Your task to perform on an android device: install app "Google Chrome" Image 0: 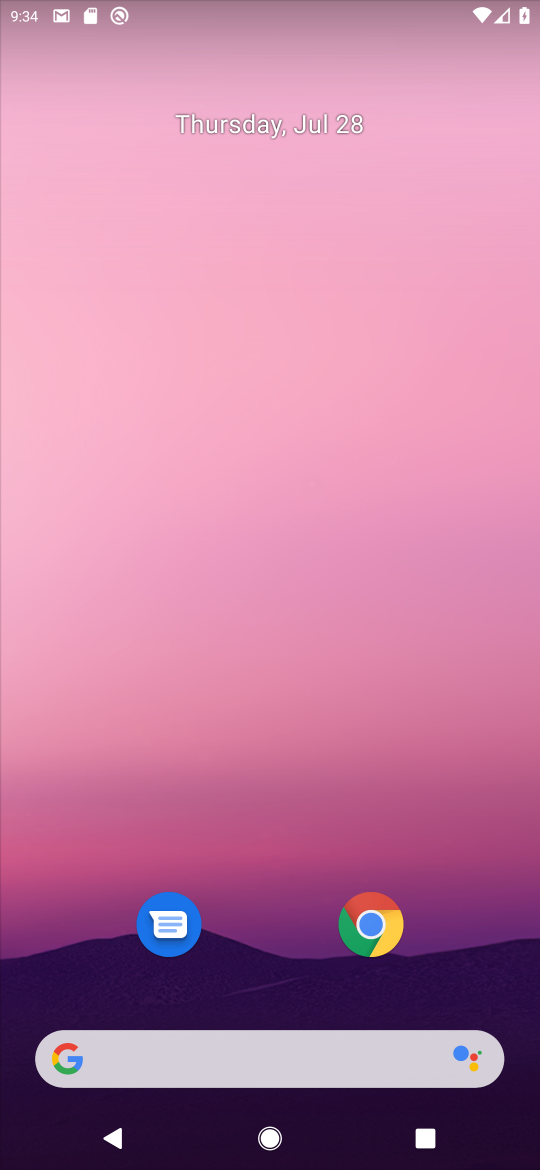
Step 0: drag from (281, 717) to (316, 282)
Your task to perform on an android device: install app "Google Chrome" Image 1: 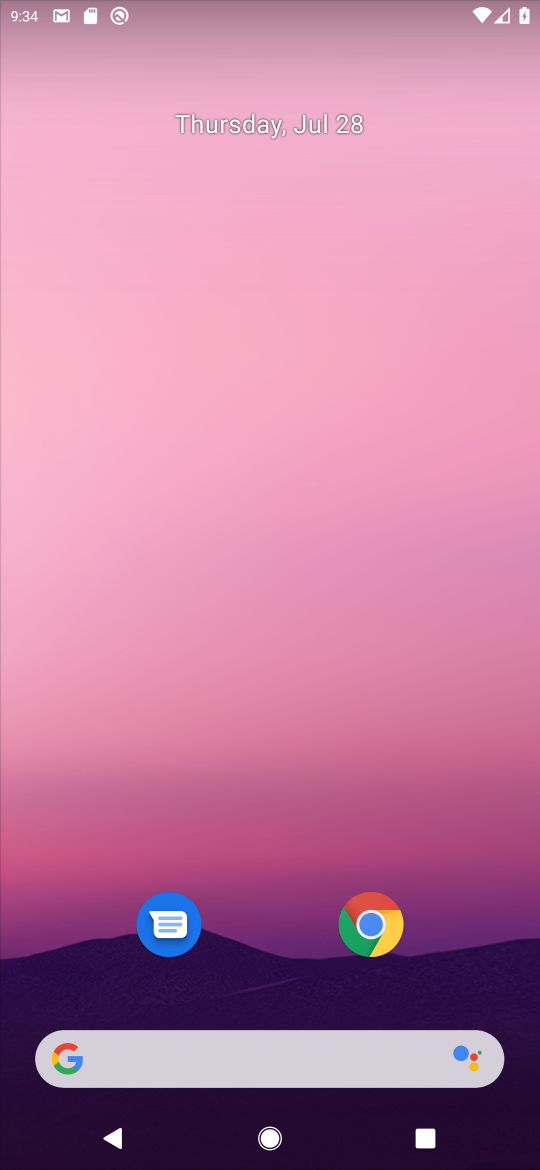
Step 1: drag from (250, 1064) to (256, 72)
Your task to perform on an android device: install app "Google Chrome" Image 2: 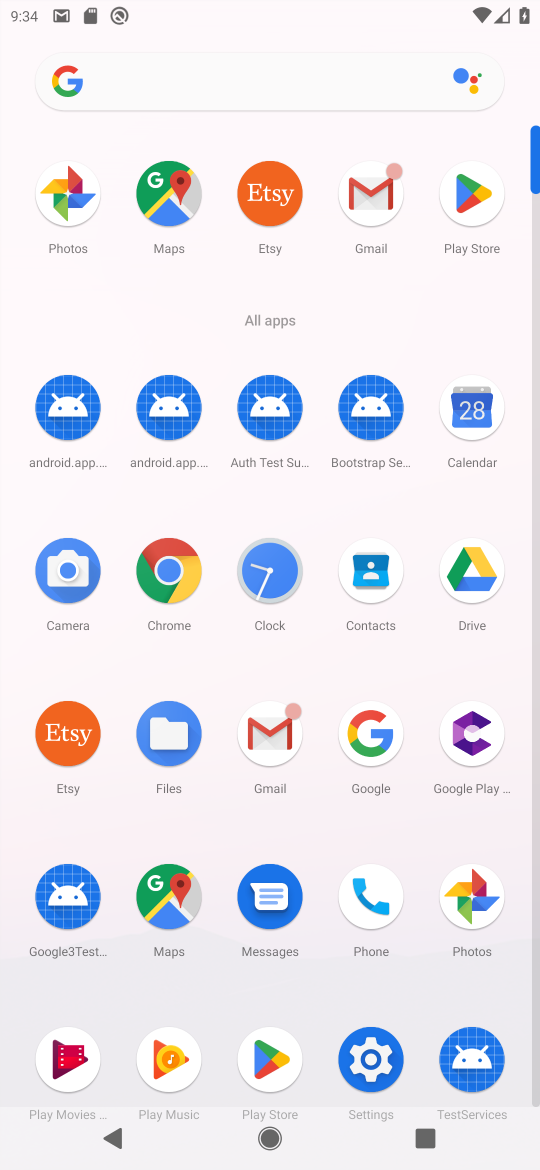
Step 2: click (452, 199)
Your task to perform on an android device: install app "Google Chrome" Image 3: 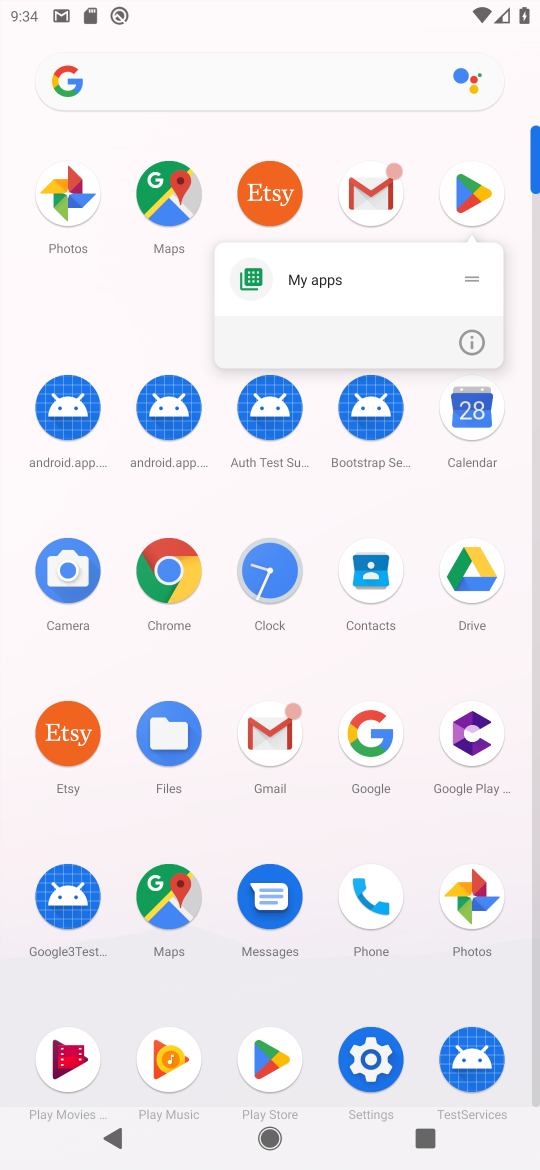
Step 3: click (452, 199)
Your task to perform on an android device: install app "Google Chrome" Image 4: 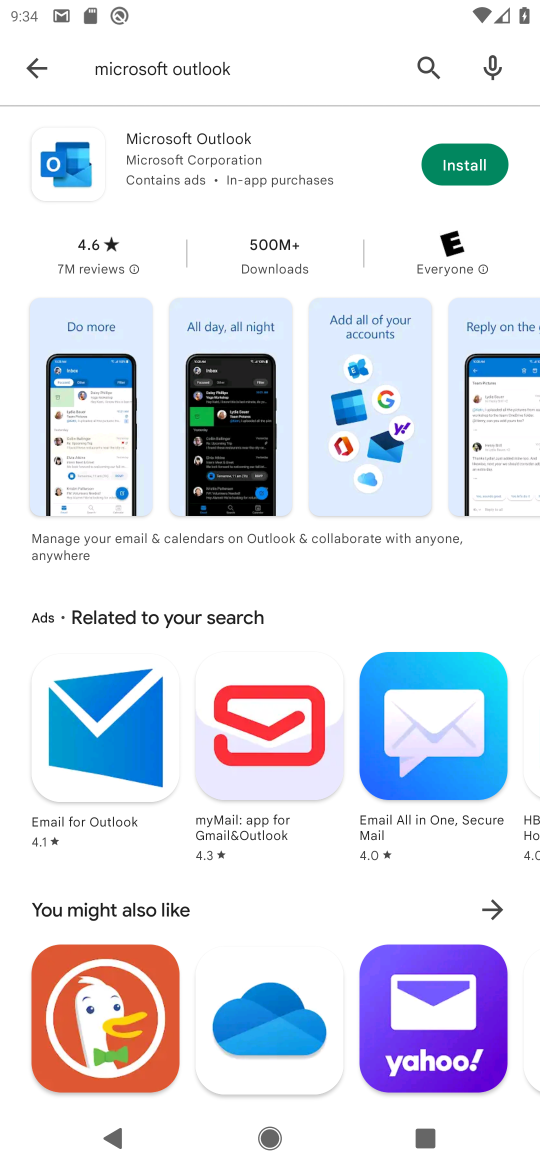
Step 4: click (424, 64)
Your task to perform on an android device: install app "Google Chrome" Image 5: 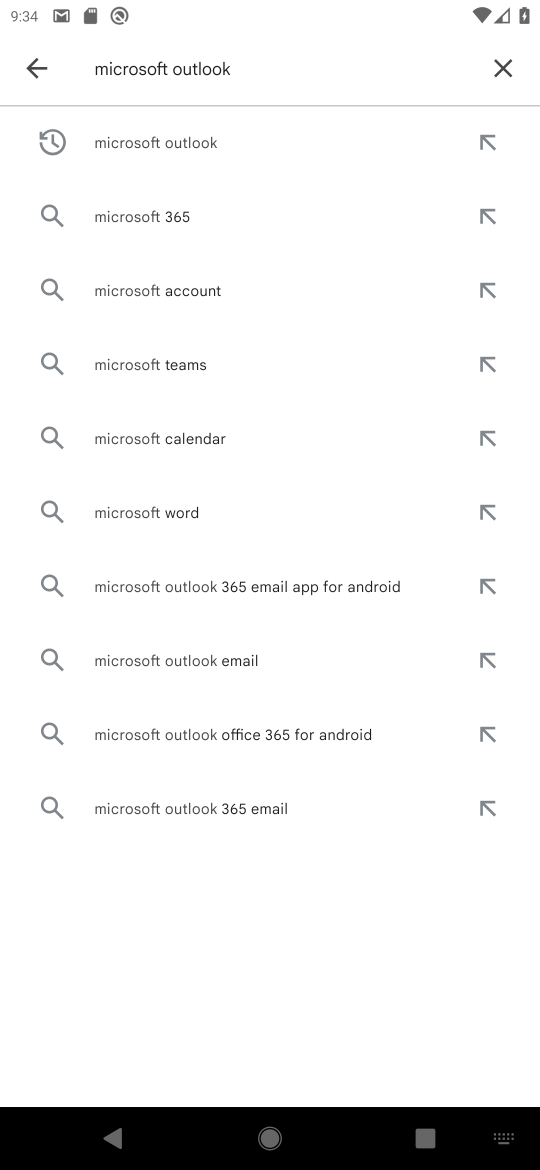
Step 5: click (492, 68)
Your task to perform on an android device: install app "Google Chrome" Image 6: 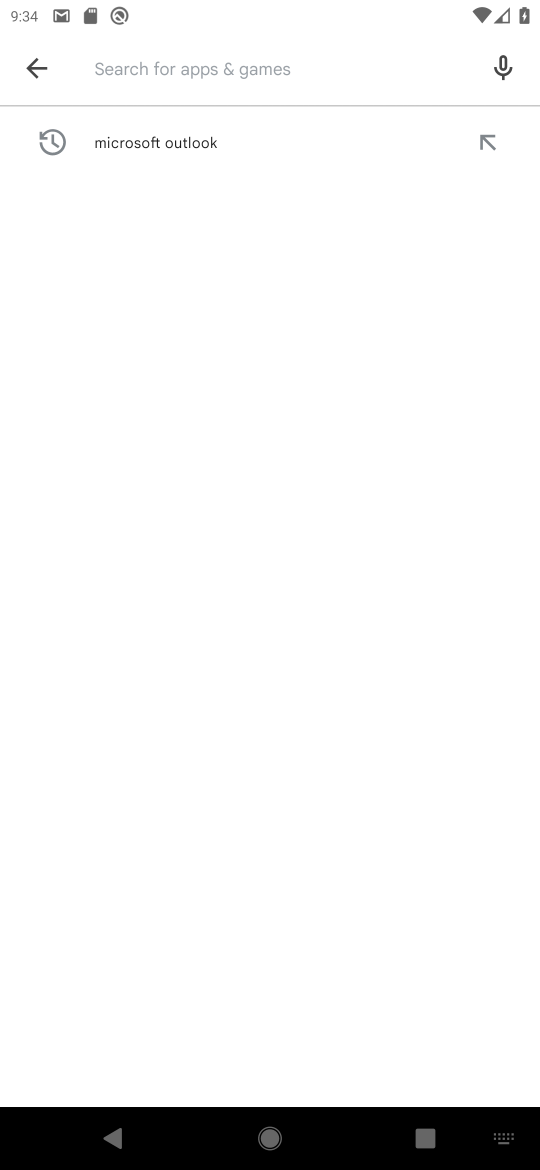
Step 6: type "google chrome"
Your task to perform on an android device: install app "Google Chrome" Image 7: 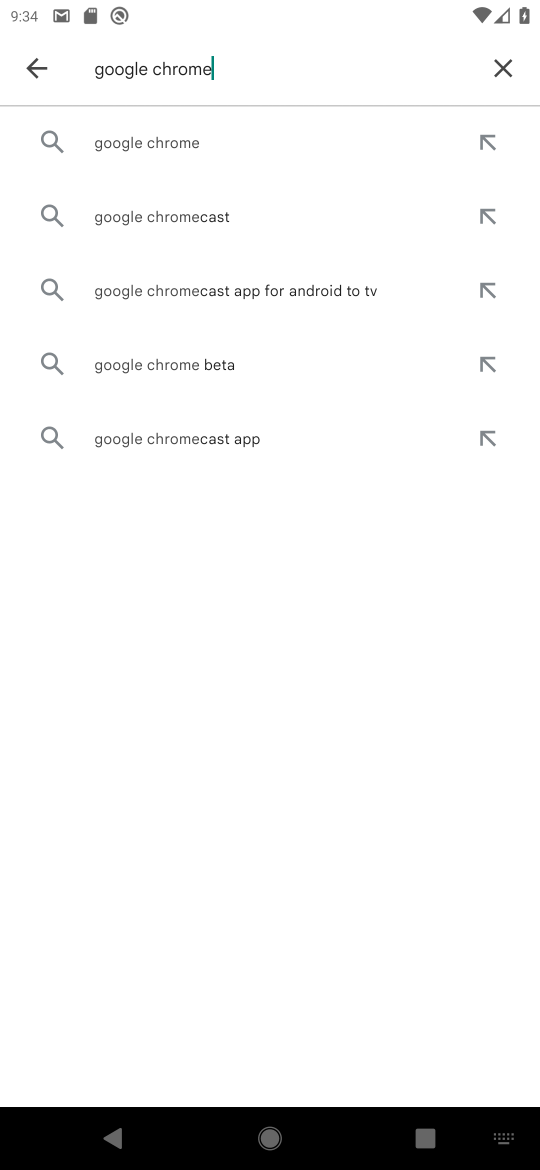
Step 7: click (121, 135)
Your task to perform on an android device: install app "Google Chrome" Image 8: 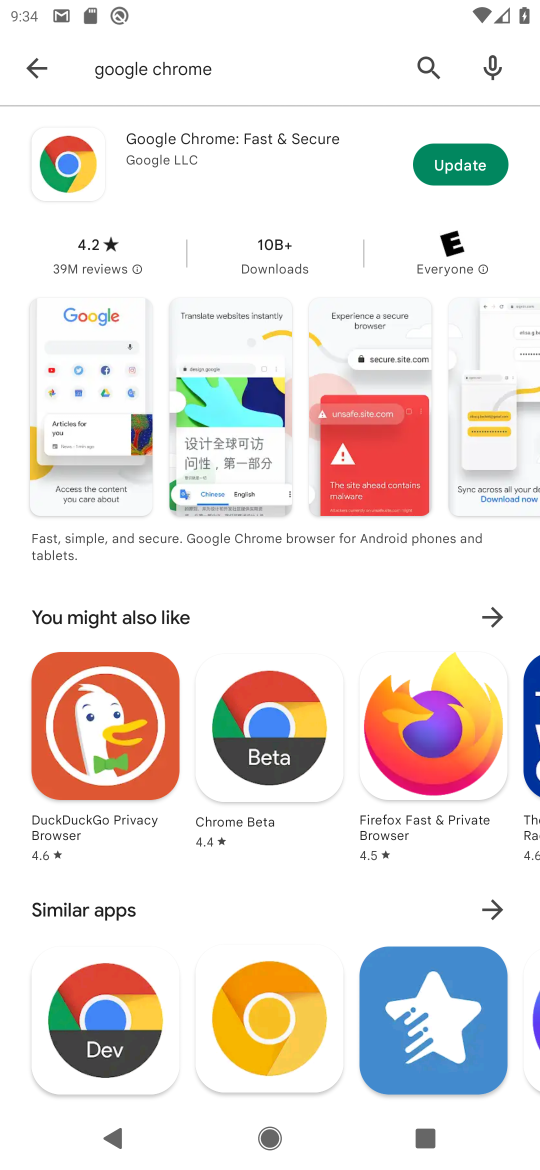
Step 8: click (121, 162)
Your task to perform on an android device: install app "Google Chrome" Image 9: 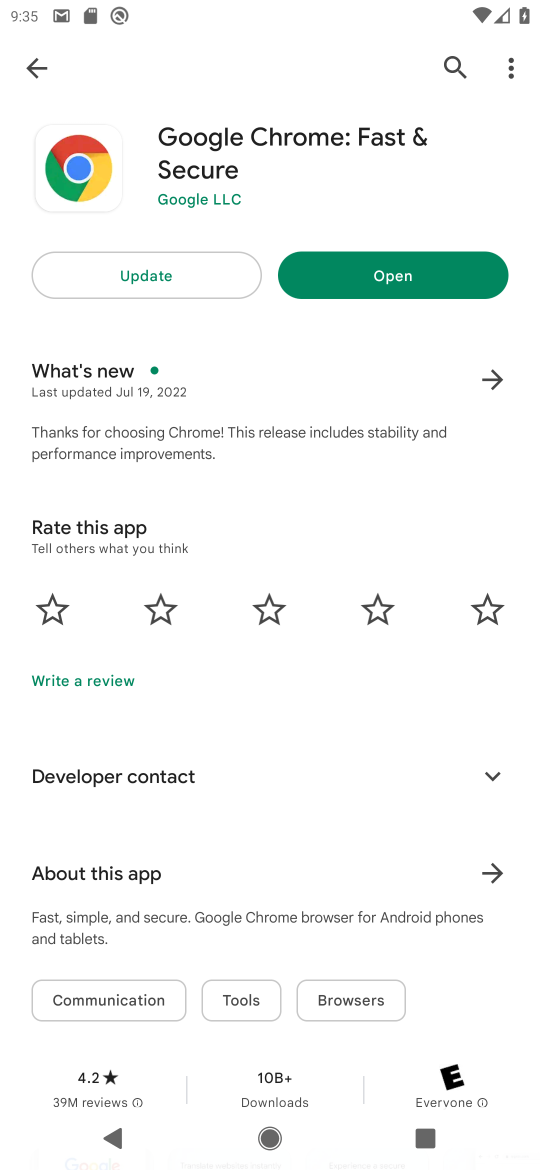
Step 9: click (347, 264)
Your task to perform on an android device: install app "Google Chrome" Image 10: 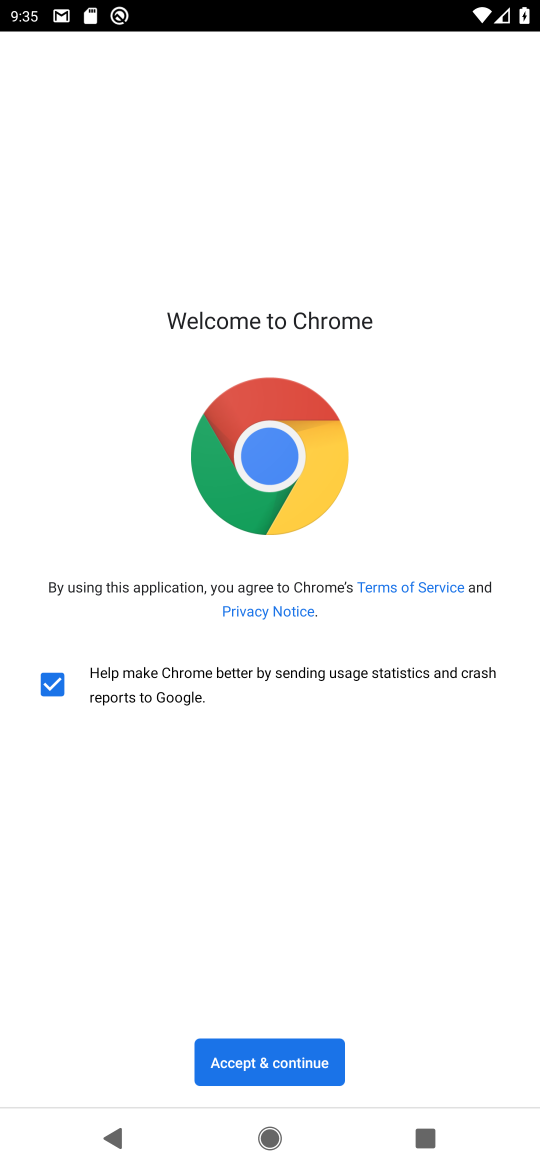
Step 10: task complete